Your task to perform on an android device: Is it going to rain tomorrow? Image 0: 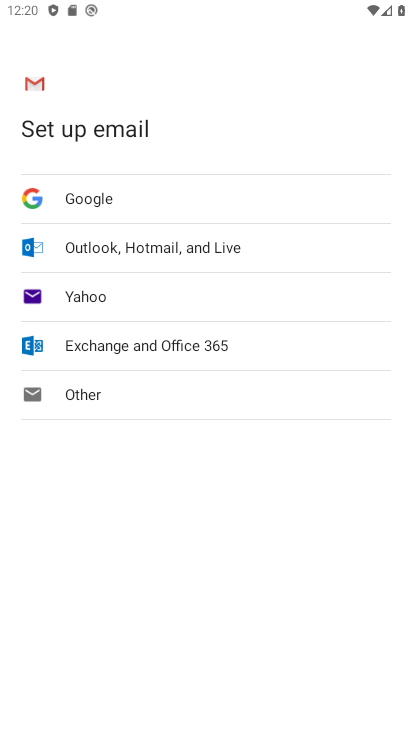
Step 0: press back button
Your task to perform on an android device: Is it going to rain tomorrow? Image 1: 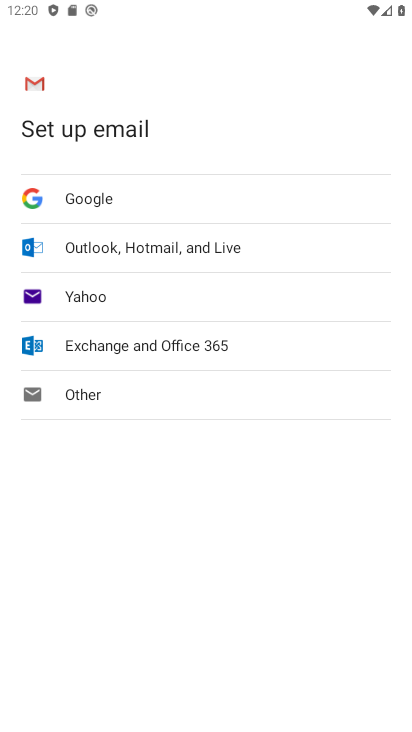
Step 1: press back button
Your task to perform on an android device: Is it going to rain tomorrow? Image 2: 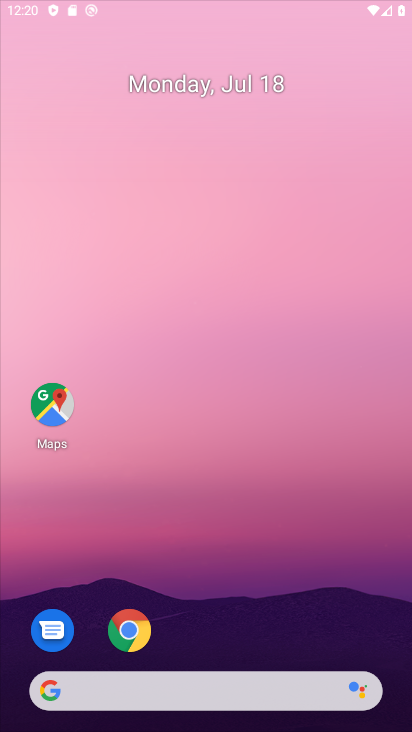
Step 2: press home button
Your task to perform on an android device: Is it going to rain tomorrow? Image 3: 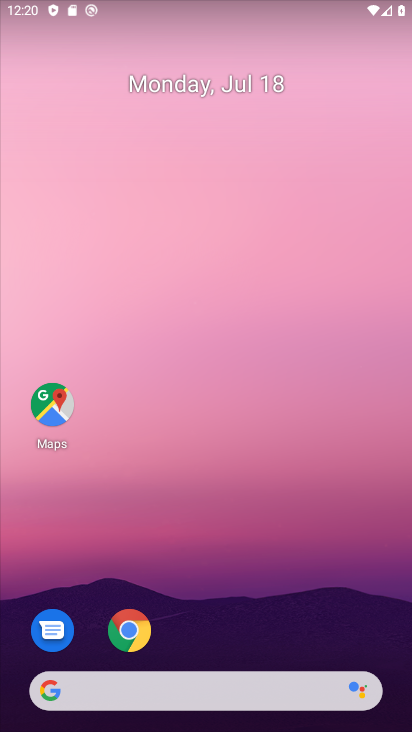
Step 3: drag from (229, 665) to (197, 95)
Your task to perform on an android device: Is it going to rain tomorrow? Image 4: 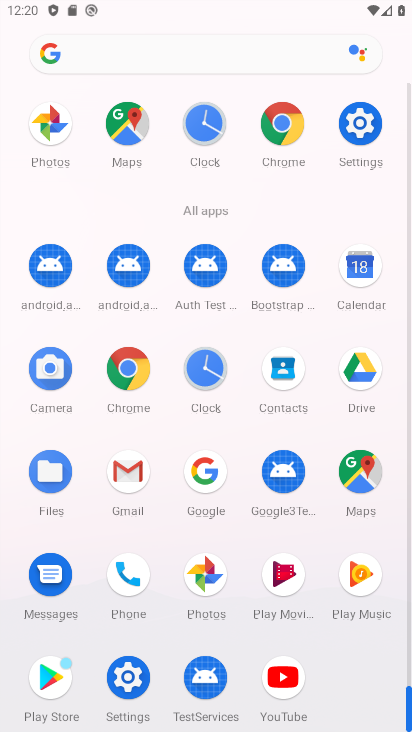
Step 4: click (276, 121)
Your task to perform on an android device: Is it going to rain tomorrow? Image 5: 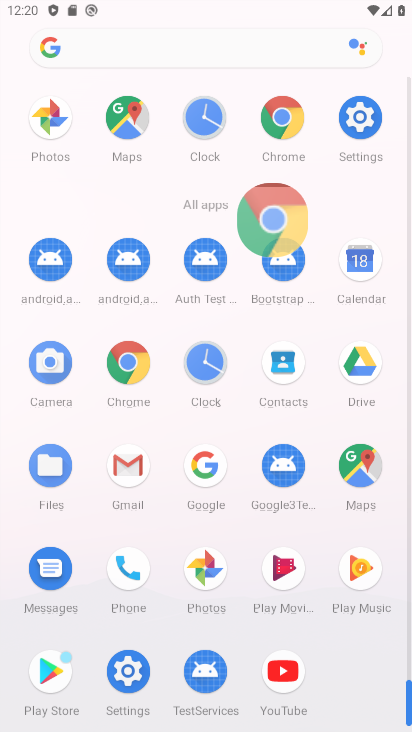
Step 5: click (295, 118)
Your task to perform on an android device: Is it going to rain tomorrow? Image 6: 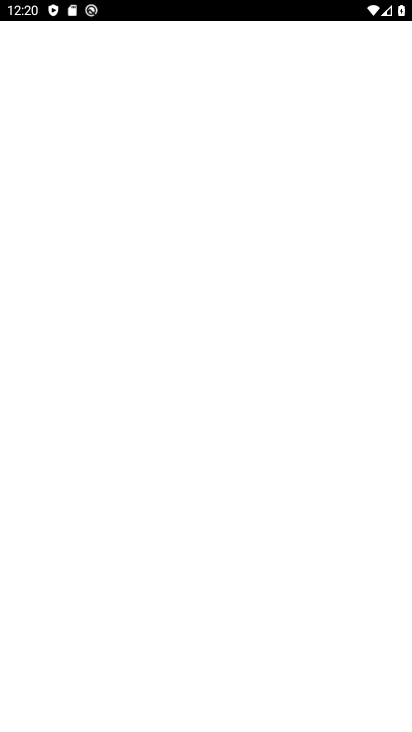
Step 6: click (296, 119)
Your task to perform on an android device: Is it going to rain tomorrow? Image 7: 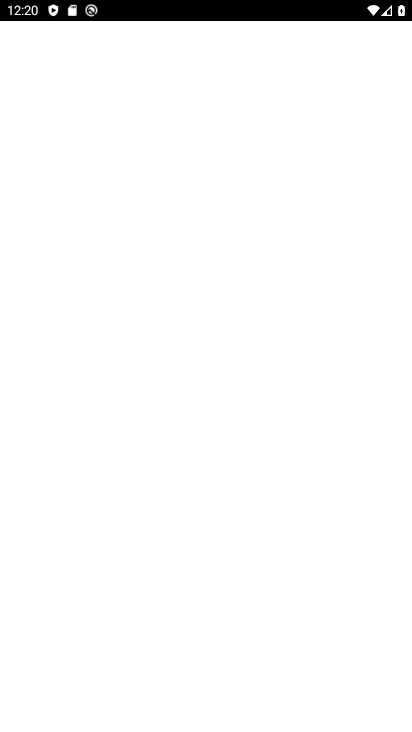
Step 7: click (297, 118)
Your task to perform on an android device: Is it going to rain tomorrow? Image 8: 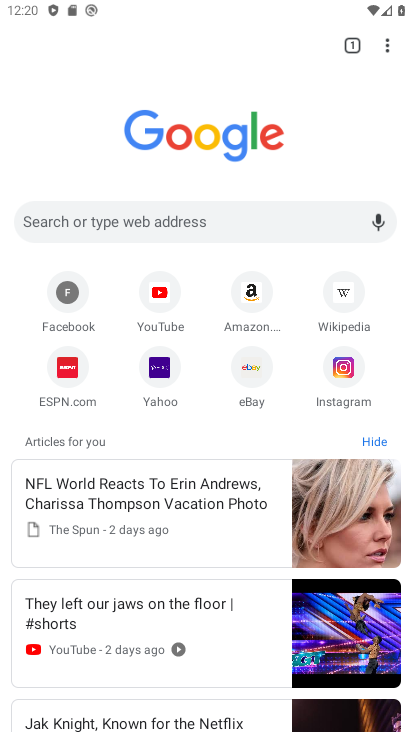
Step 8: click (88, 221)
Your task to perform on an android device: Is it going to rain tomorrow? Image 9: 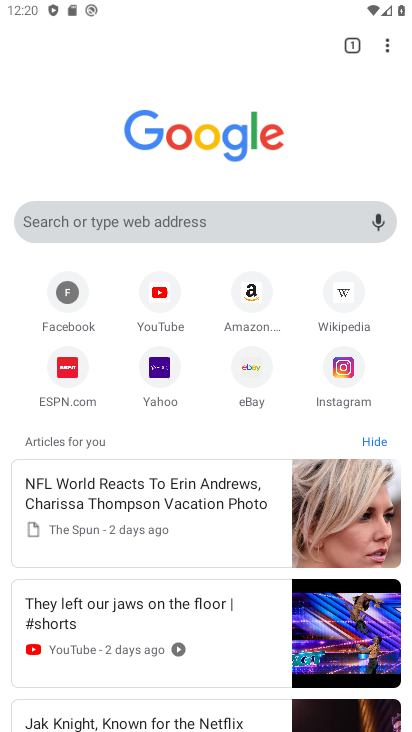
Step 9: click (91, 221)
Your task to perform on an android device: Is it going to rain tomorrow? Image 10: 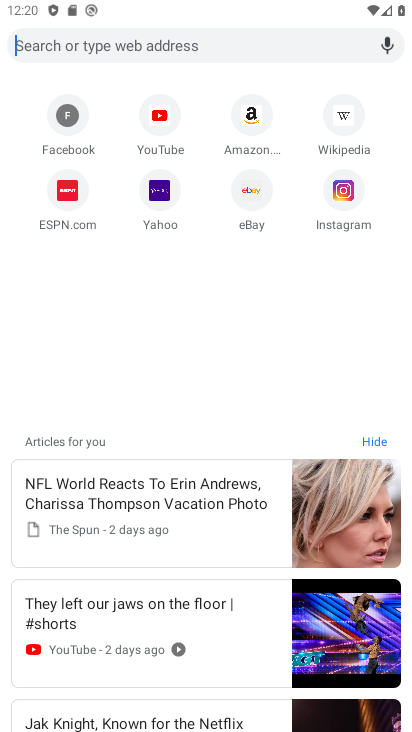
Step 10: click (92, 222)
Your task to perform on an android device: Is it going to rain tomorrow? Image 11: 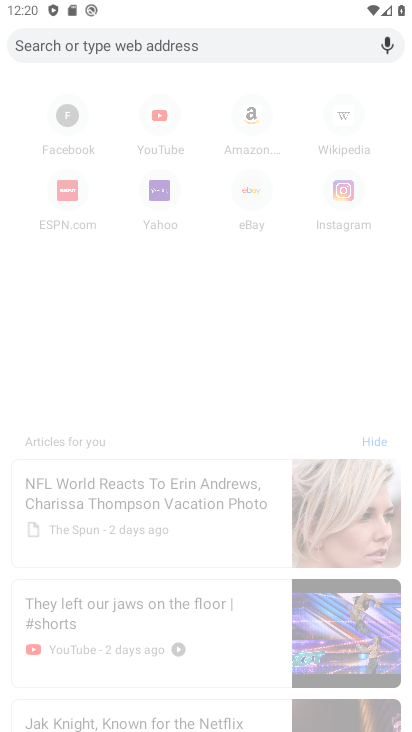
Step 11: click (94, 223)
Your task to perform on an android device: Is it going to rain tomorrow? Image 12: 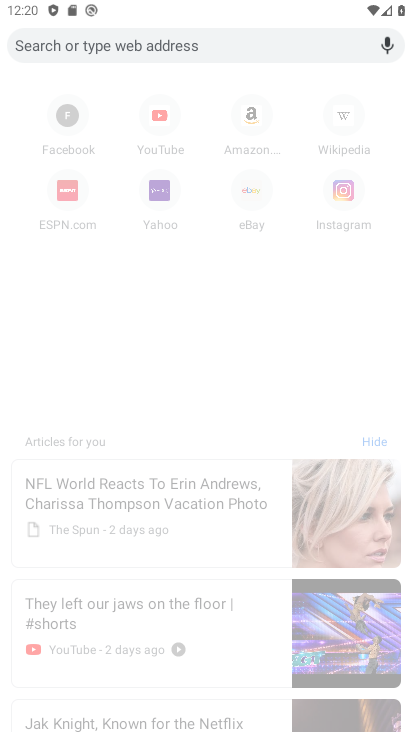
Step 12: click (95, 221)
Your task to perform on an android device: Is it going to rain tomorrow? Image 13: 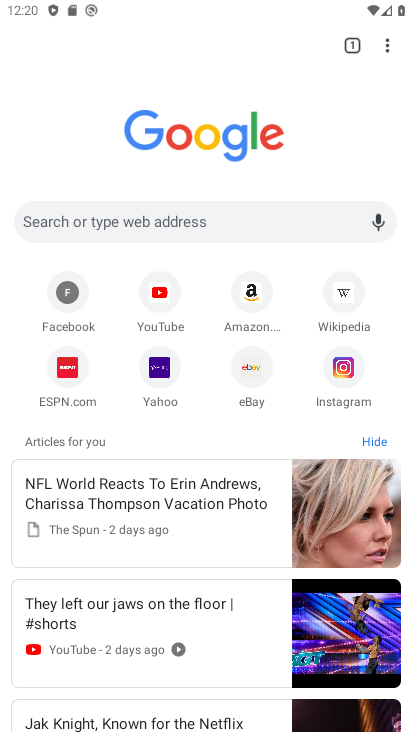
Step 13: click (101, 227)
Your task to perform on an android device: Is it going to rain tomorrow? Image 14: 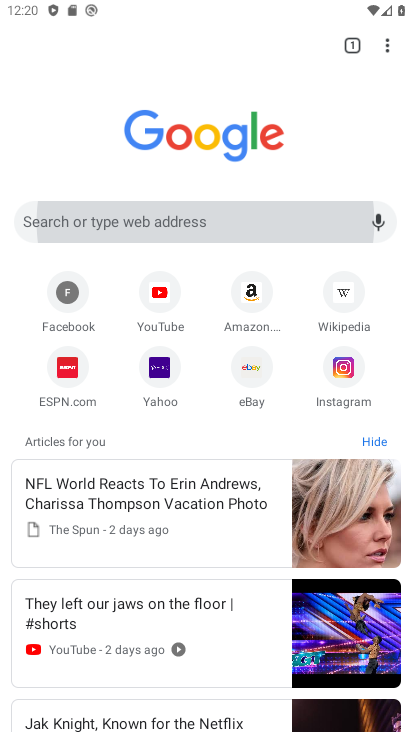
Step 14: click (105, 232)
Your task to perform on an android device: Is it going to rain tomorrow? Image 15: 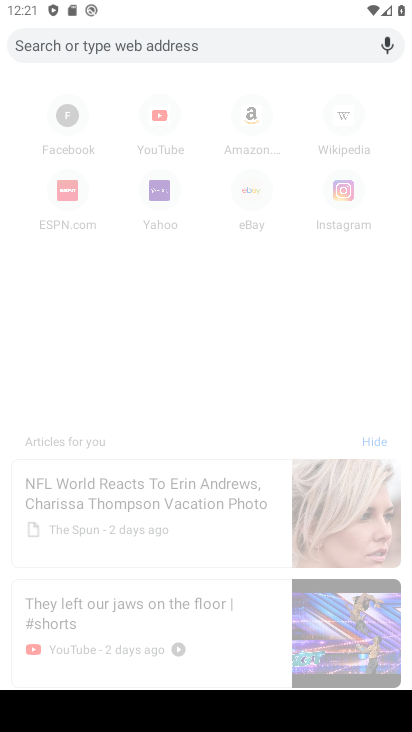
Step 15: type "is it going to rain to morrow?"
Your task to perform on an android device: Is it going to rain tomorrow? Image 16: 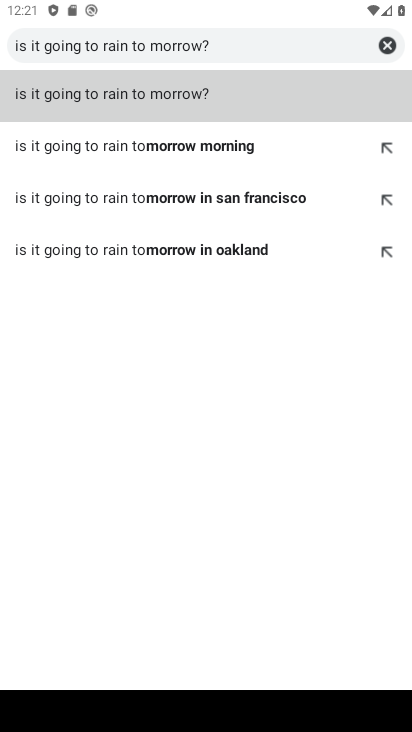
Step 16: click (225, 139)
Your task to perform on an android device: Is it going to rain tomorrow? Image 17: 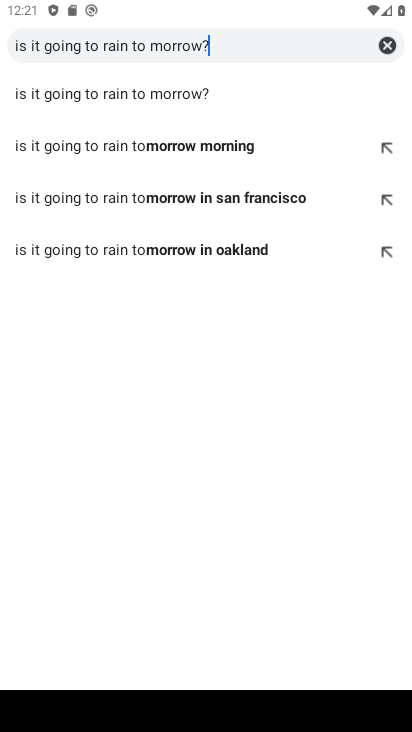
Step 17: click (225, 139)
Your task to perform on an android device: Is it going to rain tomorrow? Image 18: 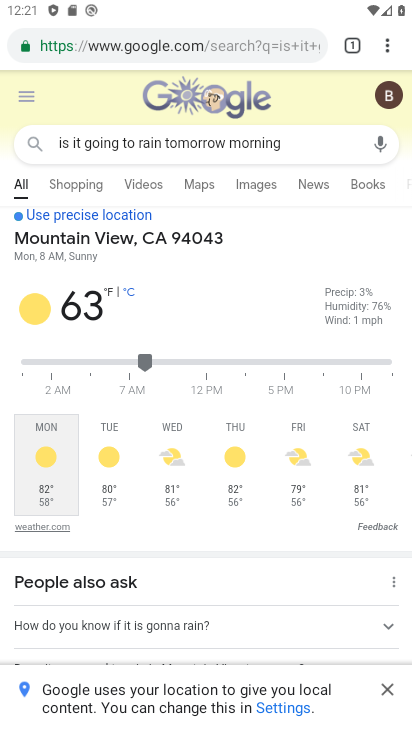
Step 18: task complete